Your task to perform on an android device: Open notification settings Image 0: 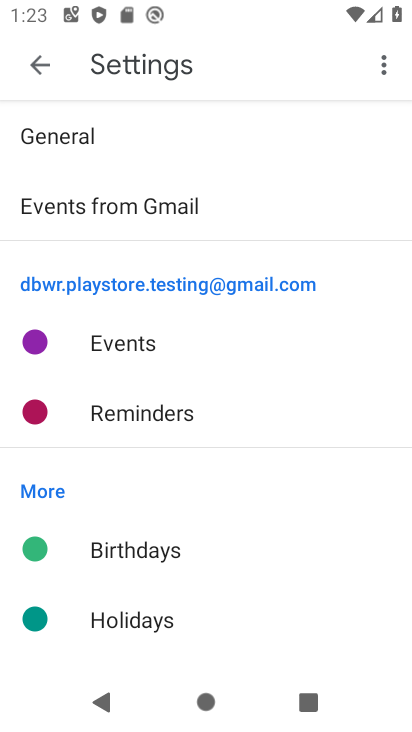
Step 0: press home button
Your task to perform on an android device: Open notification settings Image 1: 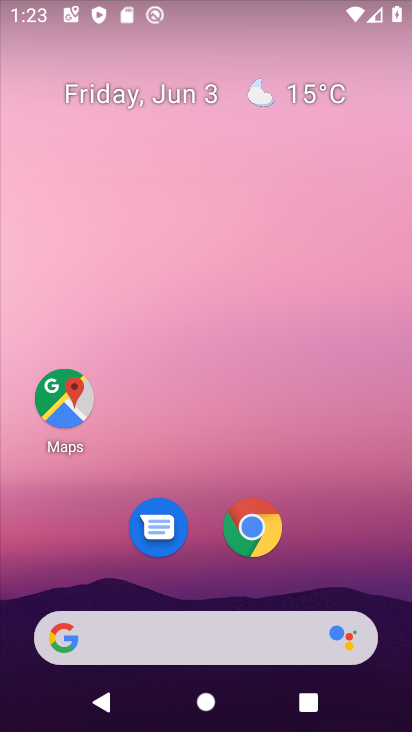
Step 1: drag from (365, 546) to (273, 220)
Your task to perform on an android device: Open notification settings Image 2: 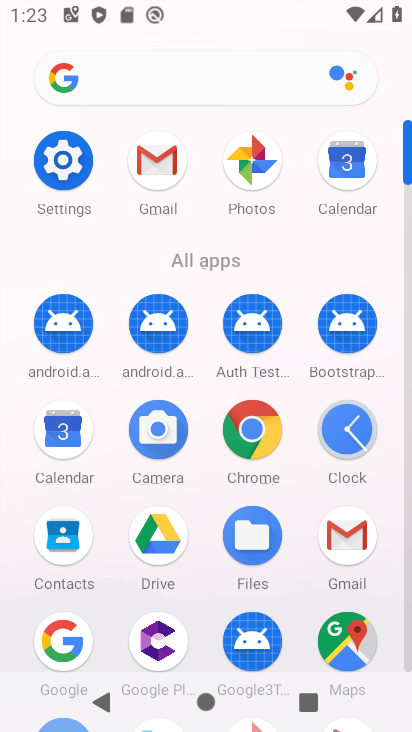
Step 2: click (55, 178)
Your task to perform on an android device: Open notification settings Image 3: 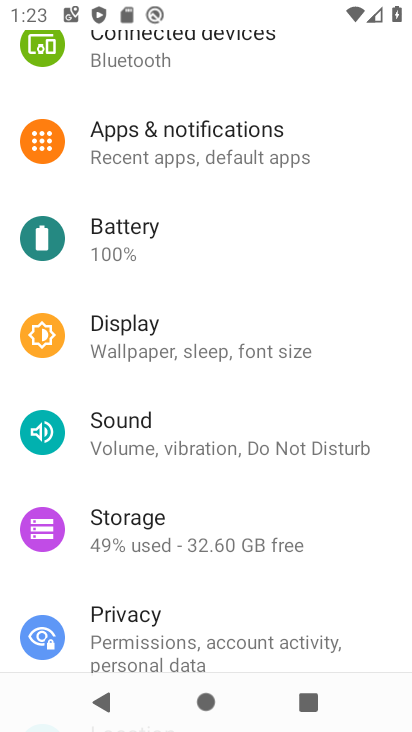
Step 3: click (183, 166)
Your task to perform on an android device: Open notification settings Image 4: 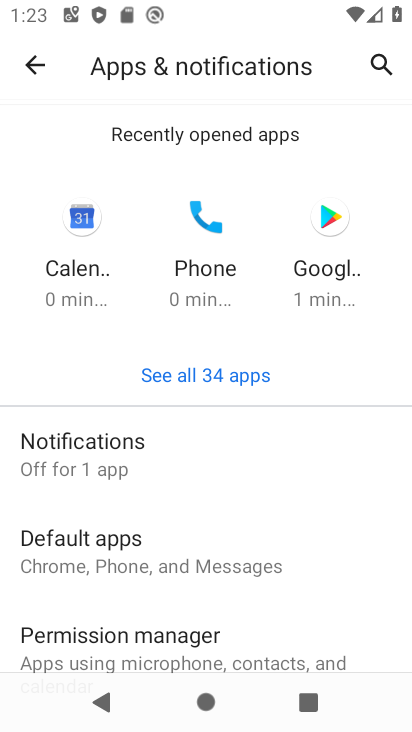
Step 4: click (191, 463)
Your task to perform on an android device: Open notification settings Image 5: 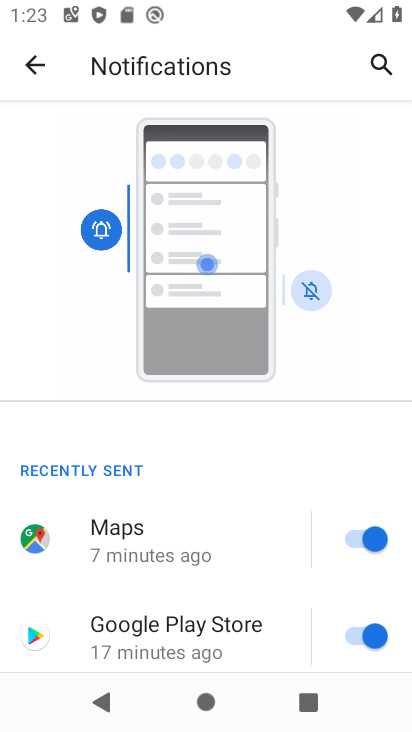
Step 5: task complete